Your task to perform on an android device: see sites visited before in the chrome app Image 0: 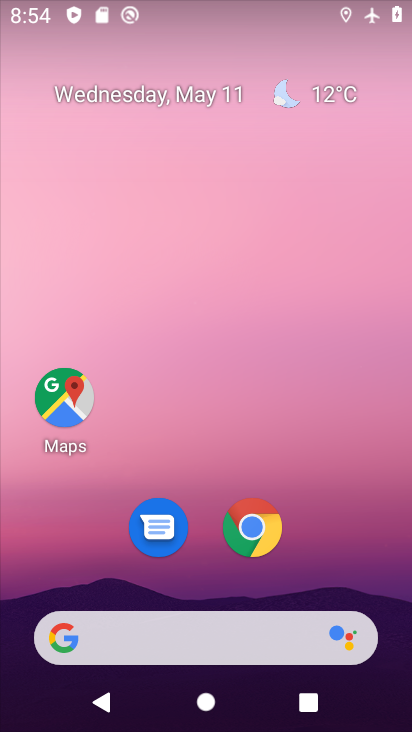
Step 0: click (257, 529)
Your task to perform on an android device: see sites visited before in the chrome app Image 1: 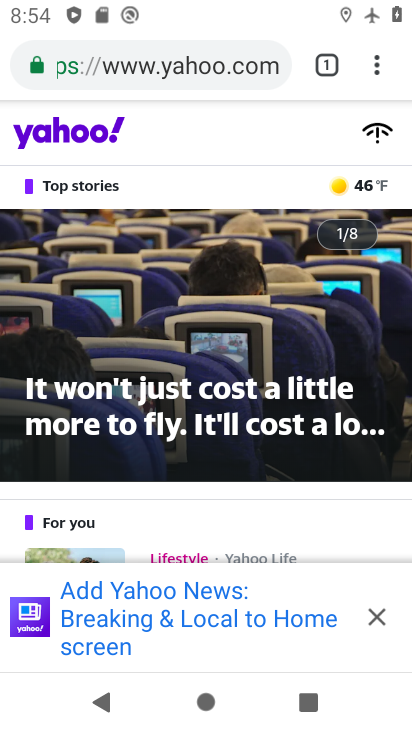
Step 1: click (380, 63)
Your task to perform on an android device: see sites visited before in the chrome app Image 2: 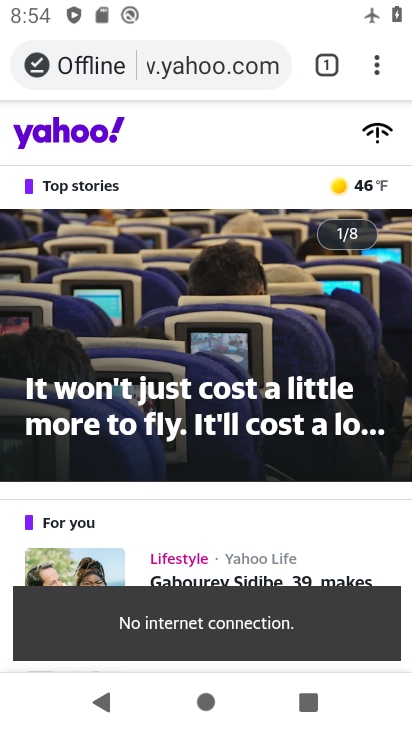
Step 2: click (378, 65)
Your task to perform on an android device: see sites visited before in the chrome app Image 3: 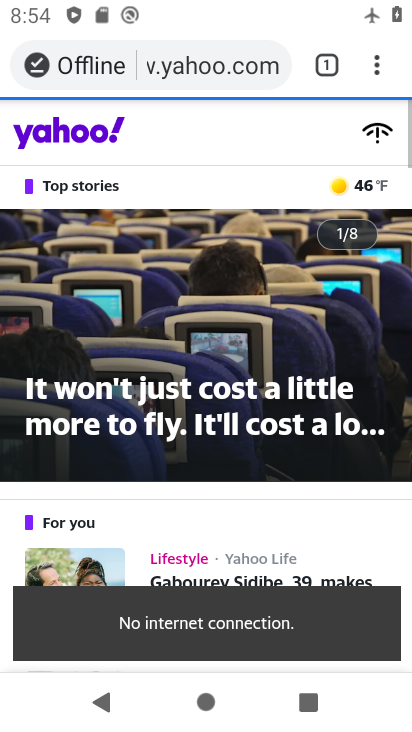
Step 3: task complete